Your task to perform on an android device: Go to internet settings Image 0: 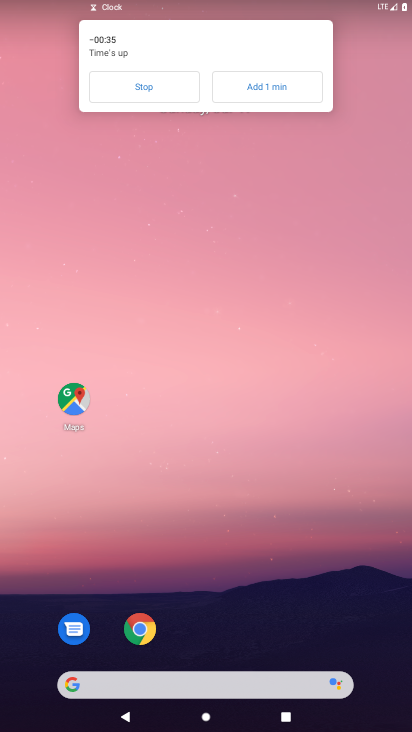
Step 0: drag from (257, 725) to (253, 98)
Your task to perform on an android device: Go to internet settings Image 1: 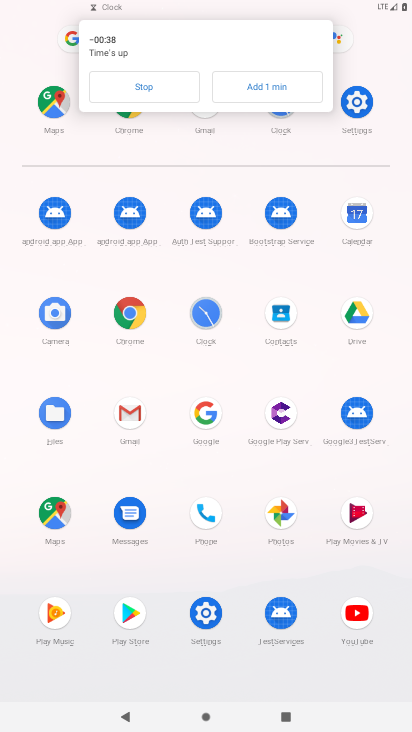
Step 1: click (356, 105)
Your task to perform on an android device: Go to internet settings Image 2: 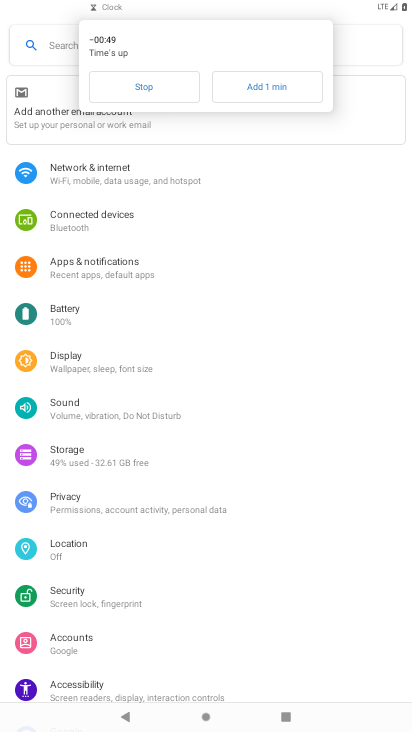
Step 2: click (85, 176)
Your task to perform on an android device: Go to internet settings Image 3: 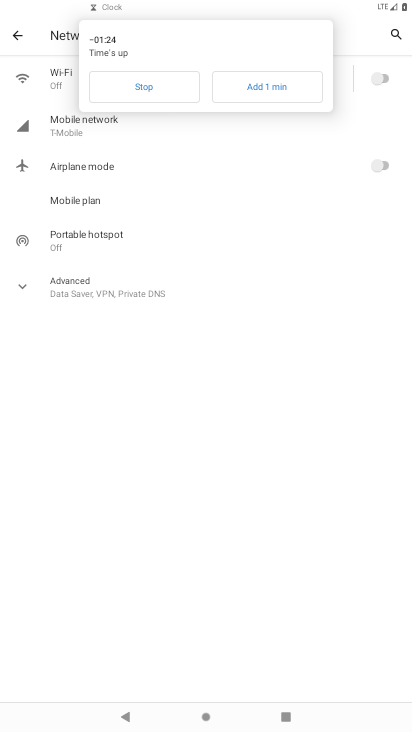
Step 3: task complete